Your task to perform on an android device: turn on wifi Image 0: 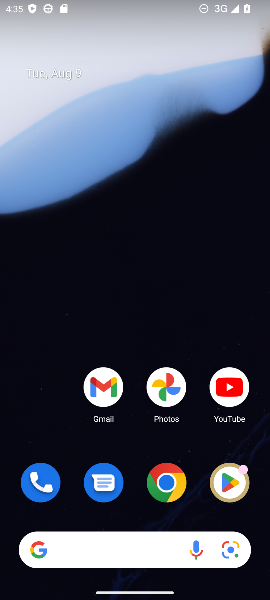
Step 0: drag from (134, 445) to (128, 74)
Your task to perform on an android device: turn on wifi Image 1: 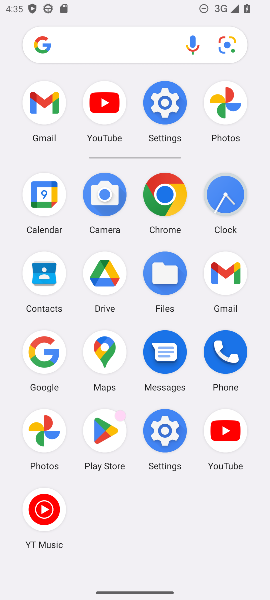
Step 1: click (154, 106)
Your task to perform on an android device: turn on wifi Image 2: 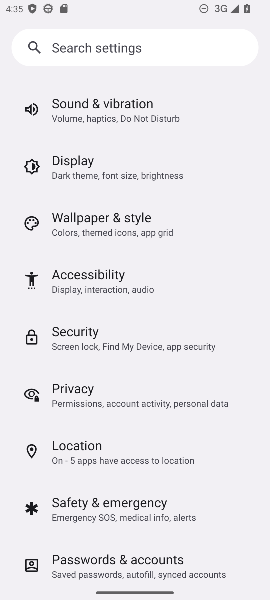
Step 2: drag from (111, 194) to (144, 439)
Your task to perform on an android device: turn on wifi Image 3: 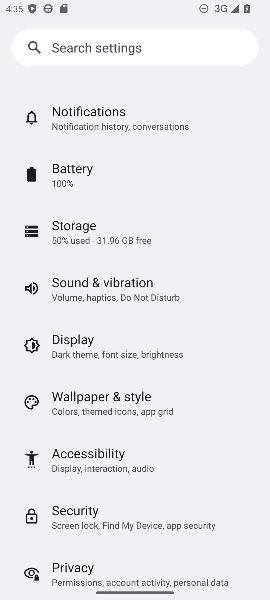
Step 3: drag from (135, 291) to (136, 374)
Your task to perform on an android device: turn on wifi Image 4: 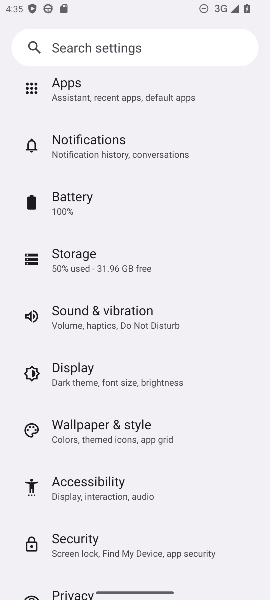
Step 4: drag from (122, 136) to (135, 409)
Your task to perform on an android device: turn on wifi Image 5: 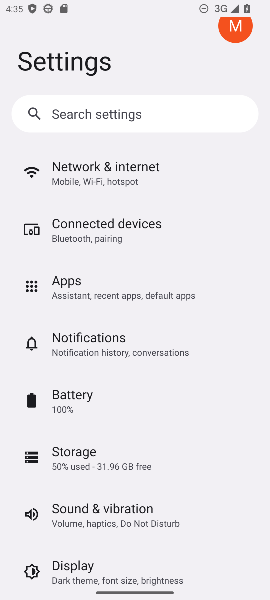
Step 5: click (98, 177)
Your task to perform on an android device: turn on wifi Image 6: 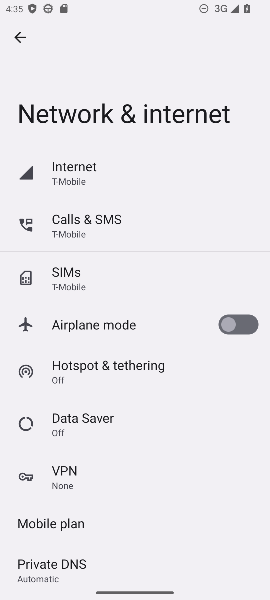
Step 6: click (118, 166)
Your task to perform on an android device: turn on wifi Image 7: 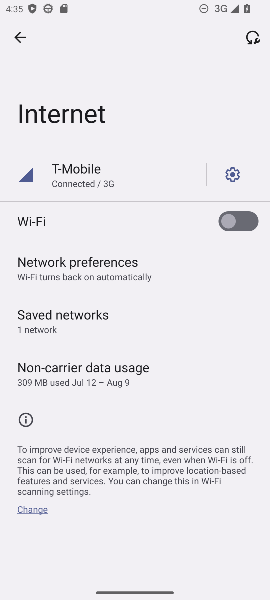
Step 7: click (230, 222)
Your task to perform on an android device: turn on wifi Image 8: 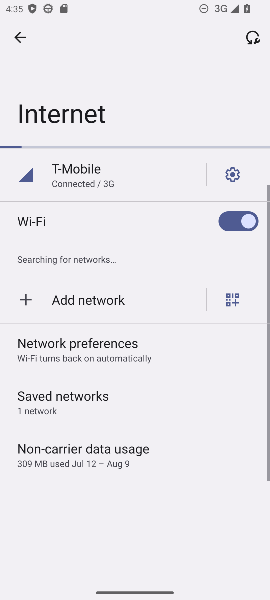
Step 8: task complete